Your task to perform on an android device: Open Amazon Image 0: 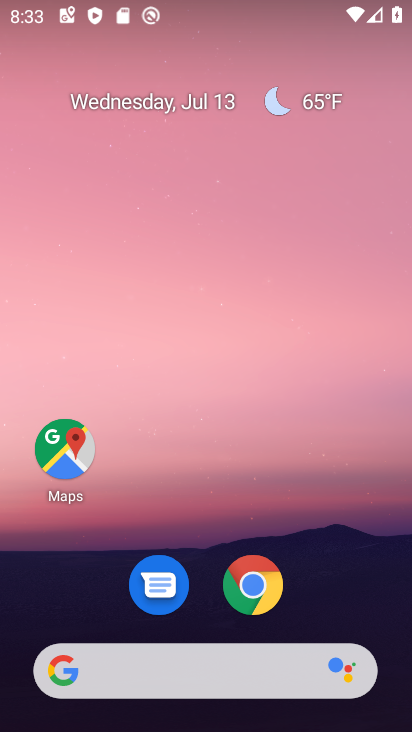
Step 0: drag from (221, 526) to (240, 41)
Your task to perform on an android device: Open Amazon Image 1: 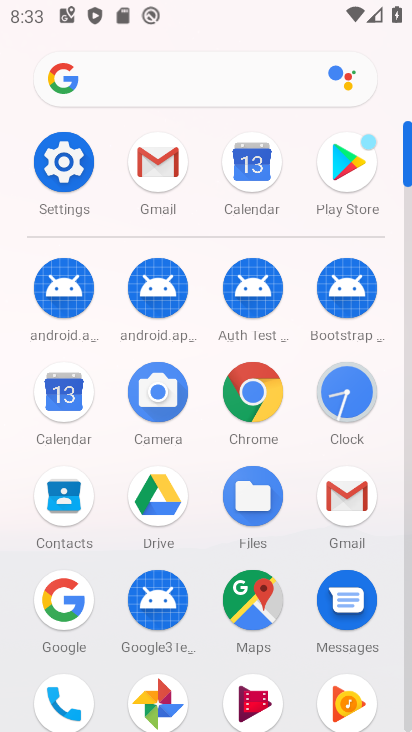
Step 1: drag from (204, 515) to (215, 384)
Your task to perform on an android device: Open Amazon Image 2: 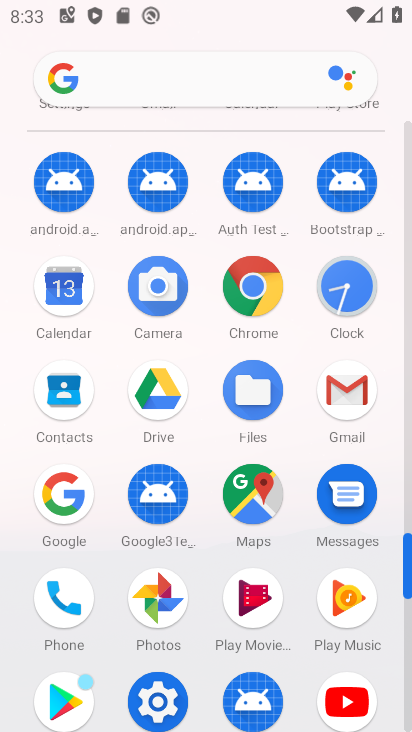
Step 2: click (244, 283)
Your task to perform on an android device: Open Amazon Image 3: 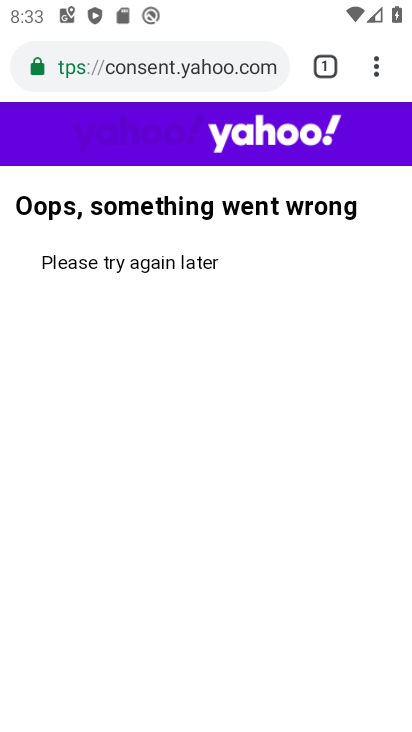
Step 3: click (375, 65)
Your task to perform on an android device: Open Amazon Image 4: 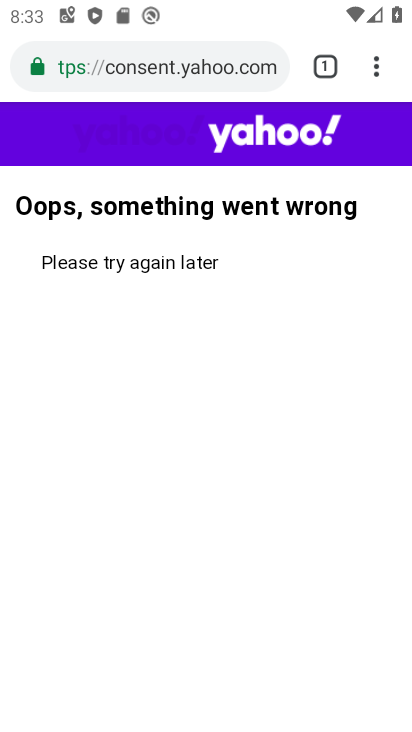
Step 4: click (373, 70)
Your task to perform on an android device: Open Amazon Image 5: 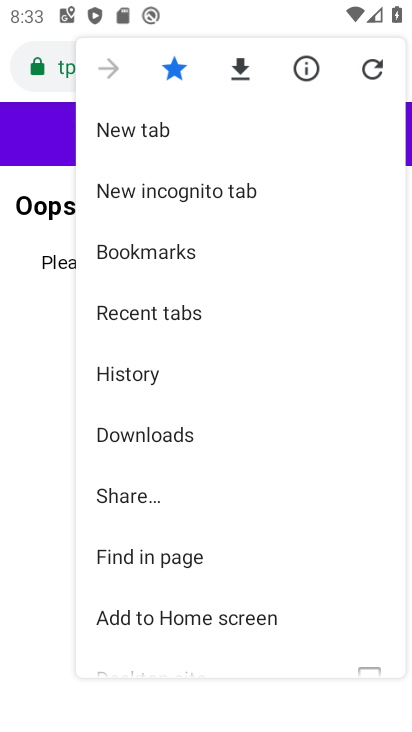
Step 5: click (281, 131)
Your task to perform on an android device: Open Amazon Image 6: 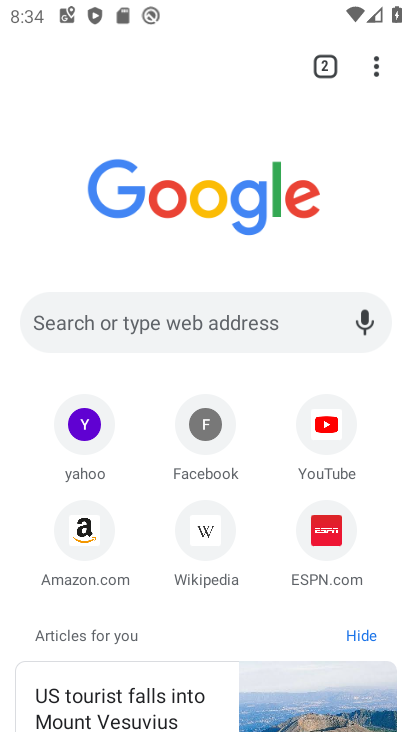
Step 6: click (85, 528)
Your task to perform on an android device: Open Amazon Image 7: 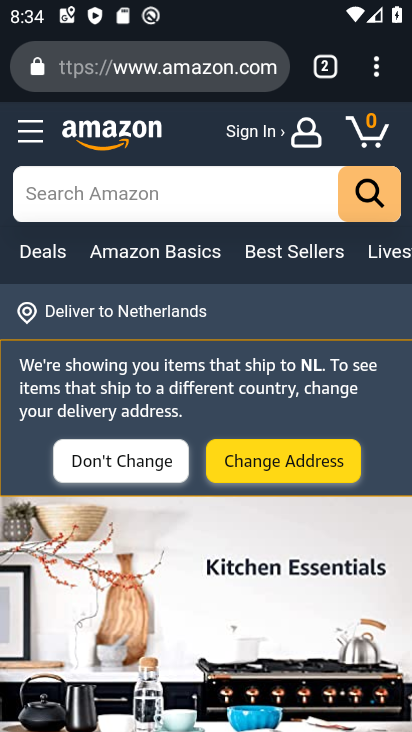
Step 7: task complete